Your task to perform on an android device: turn off wifi Image 0: 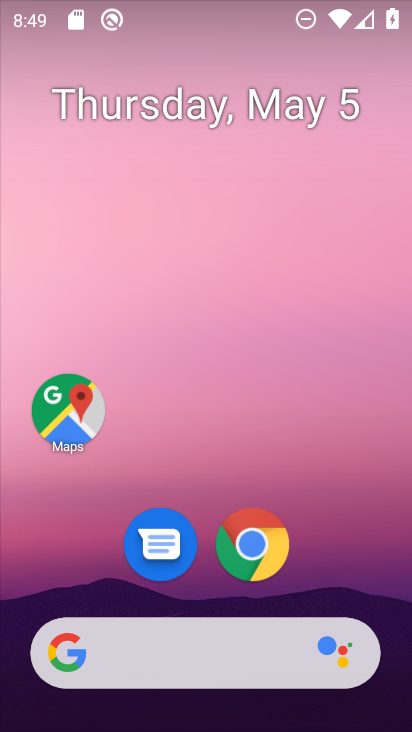
Step 0: drag from (66, 617) to (221, 42)
Your task to perform on an android device: turn off wifi Image 1: 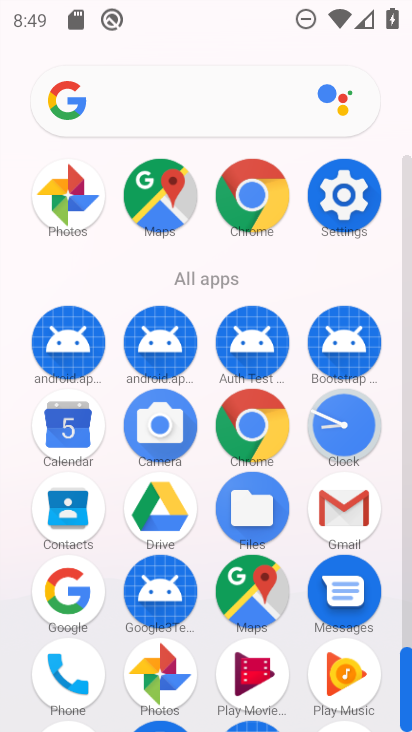
Step 1: click (353, 200)
Your task to perform on an android device: turn off wifi Image 2: 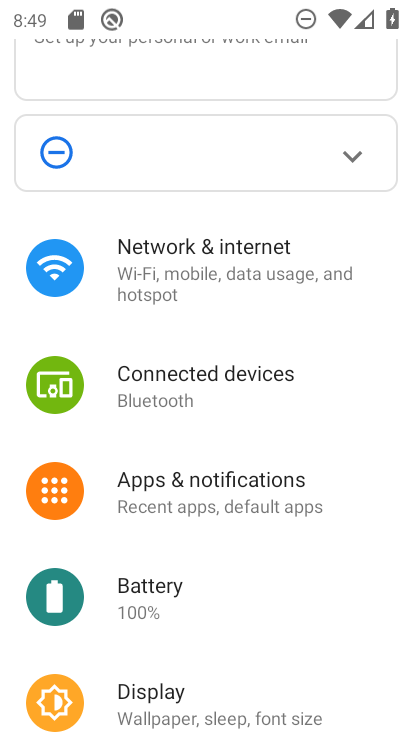
Step 2: click (161, 276)
Your task to perform on an android device: turn off wifi Image 3: 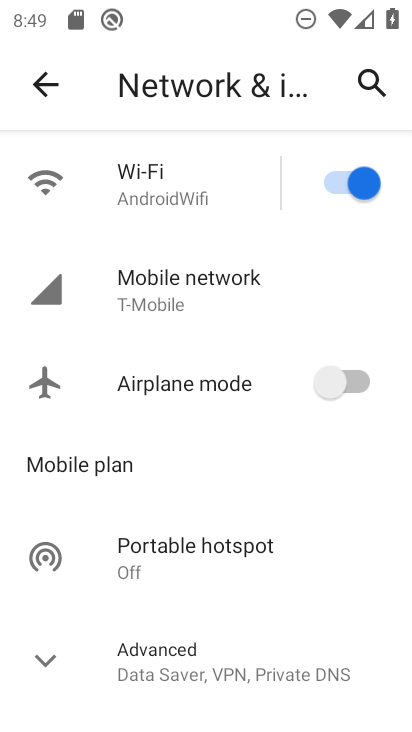
Step 3: click (326, 186)
Your task to perform on an android device: turn off wifi Image 4: 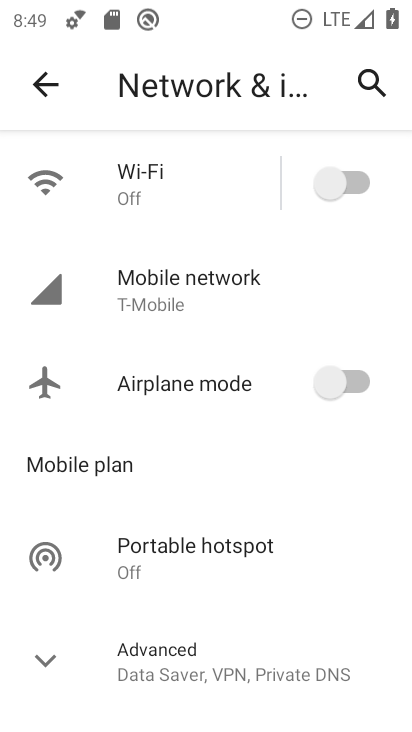
Step 4: task complete